Your task to perform on an android device: Open sound settings Image 0: 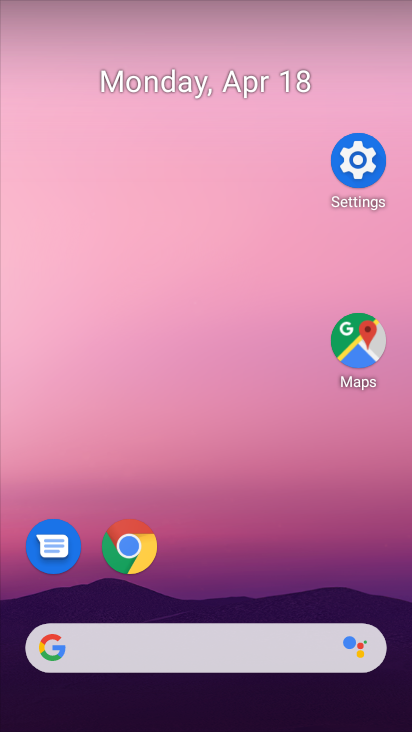
Step 0: click (162, 195)
Your task to perform on an android device: Open sound settings Image 1: 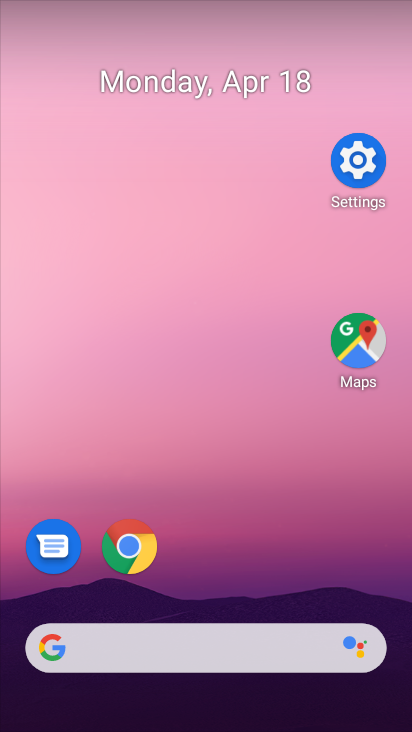
Step 1: click (198, 229)
Your task to perform on an android device: Open sound settings Image 2: 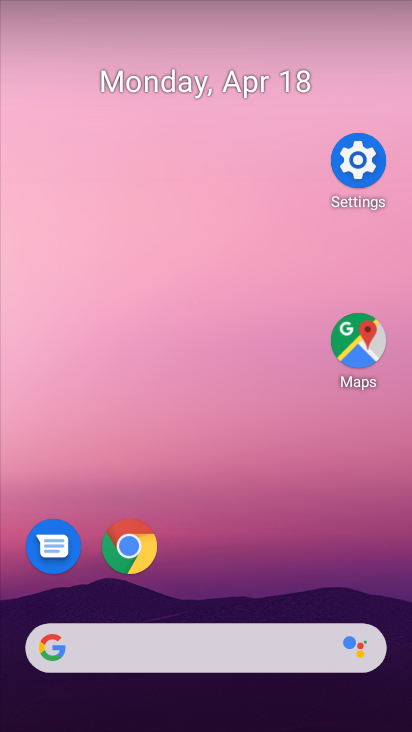
Step 2: drag from (243, 578) to (182, 158)
Your task to perform on an android device: Open sound settings Image 3: 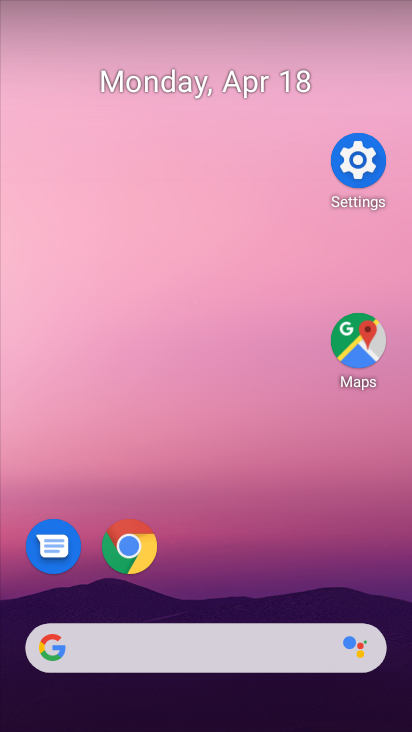
Step 3: click (131, 32)
Your task to perform on an android device: Open sound settings Image 4: 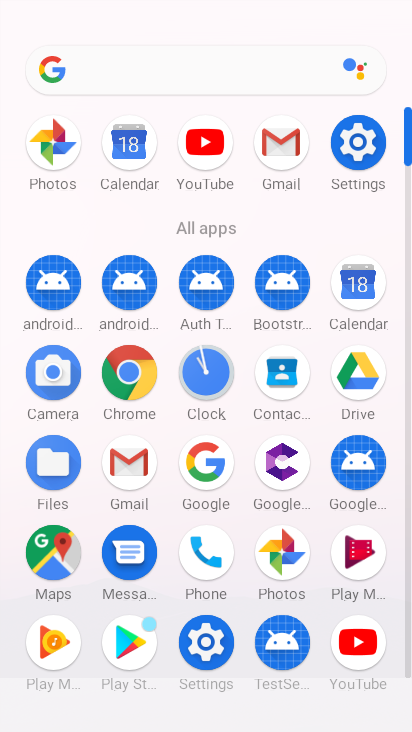
Step 4: drag from (271, 651) to (136, 174)
Your task to perform on an android device: Open sound settings Image 5: 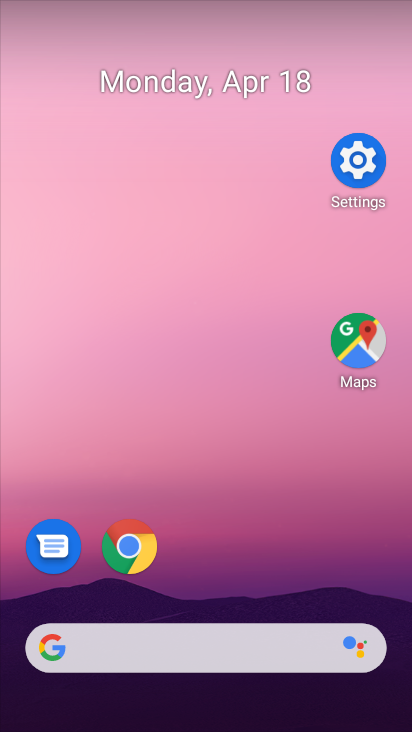
Step 5: drag from (99, 308) to (24, 52)
Your task to perform on an android device: Open sound settings Image 6: 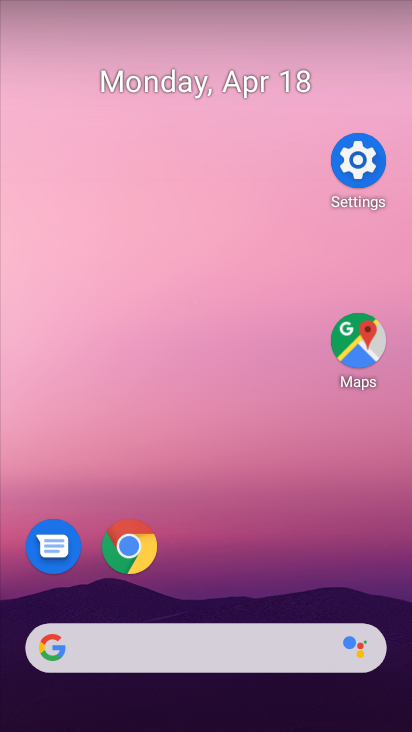
Step 6: click (132, 71)
Your task to perform on an android device: Open sound settings Image 7: 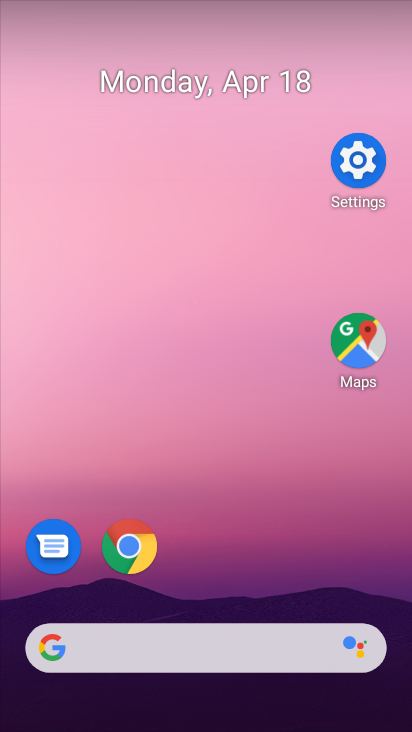
Step 7: drag from (65, 98) to (141, 186)
Your task to perform on an android device: Open sound settings Image 8: 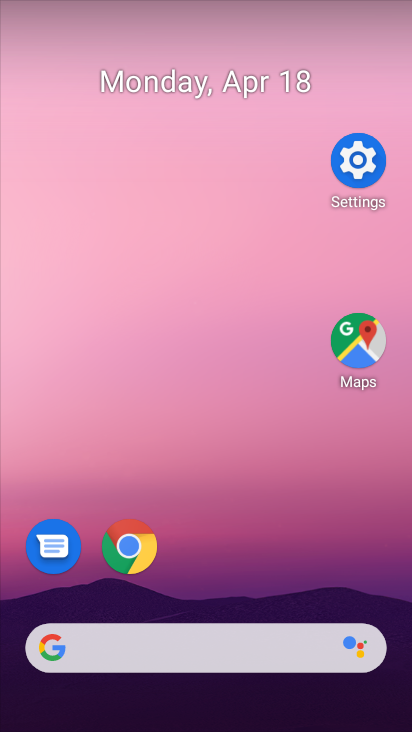
Step 8: click (148, 211)
Your task to perform on an android device: Open sound settings Image 9: 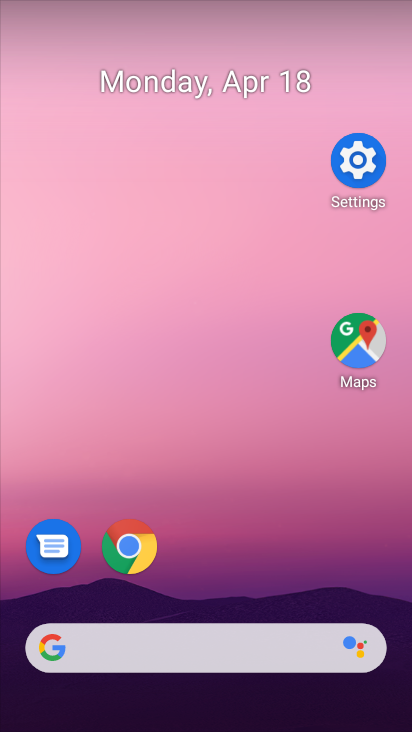
Step 9: drag from (319, 536) to (131, 74)
Your task to perform on an android device: Open sound settings Image 10: 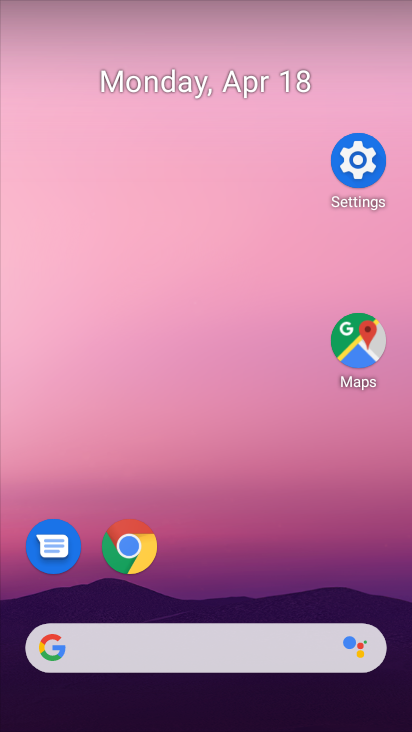
Step 10: drag from (278, 545) to (71, 127)
Your task to perform on an android device: Open sound settings Image 11: 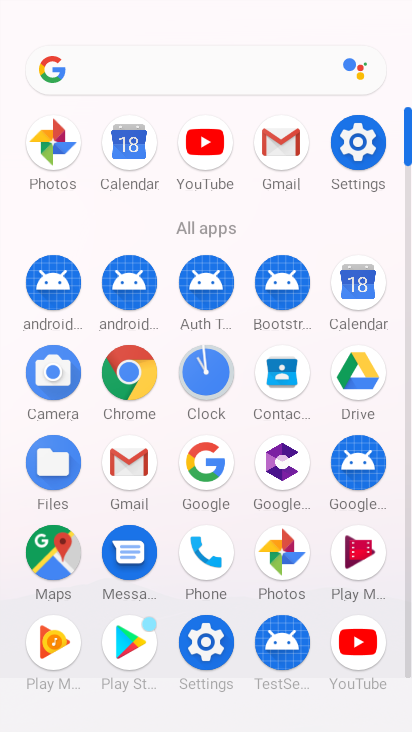
Step 11: click (347, 141)
Your task to perform on an android device: Open sound settings Image 12: 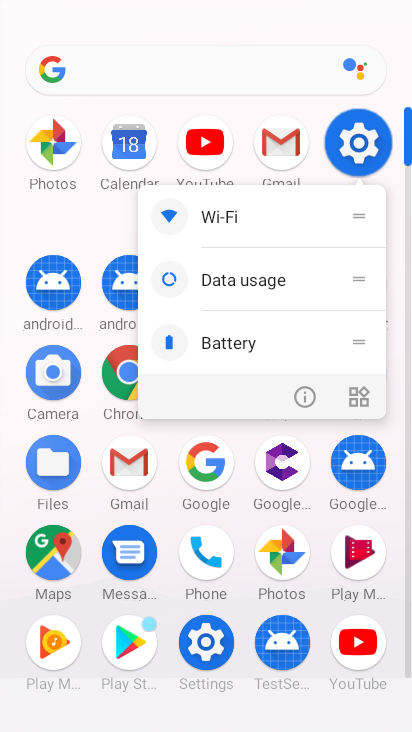
Step 12: click (348, 142)
Your task to perform on an android device: Open sound settings Image 13: 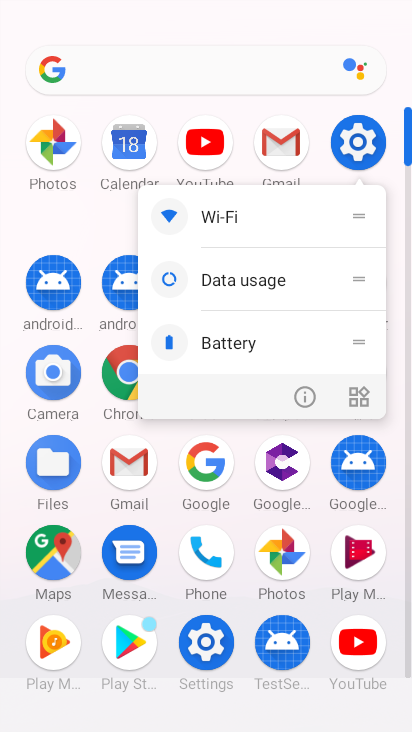
Step 13: click (363, 143)
Your task to perform on an android device: Open sound settings Image 14: 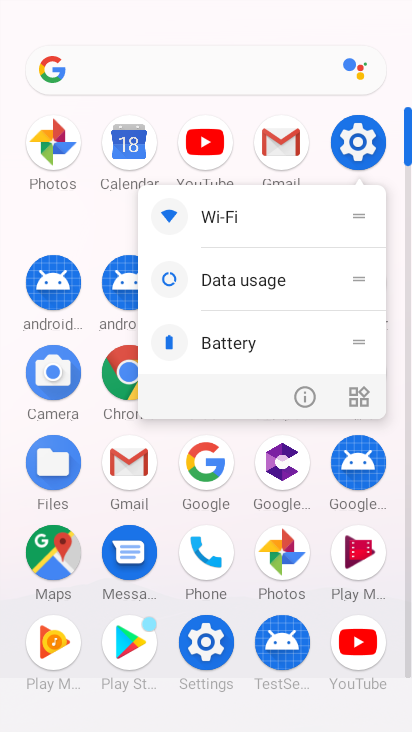
Step 14: click (360, 144)
Your task to perform on an android device: Open sound settings Image 15: 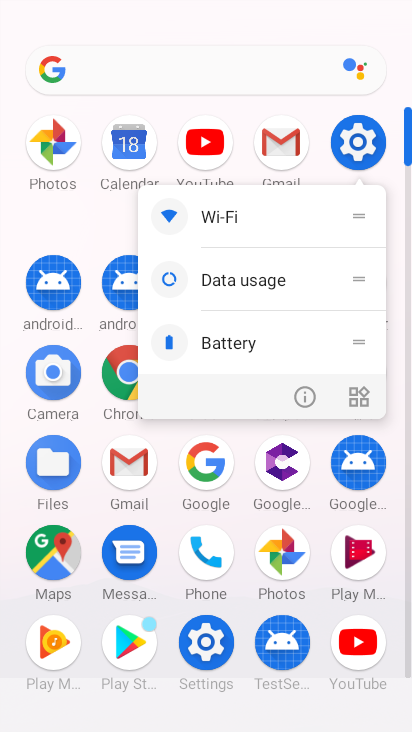
Step 15: click (365, 144)
Your task to perform on an android device: Open sound settings Image 16: 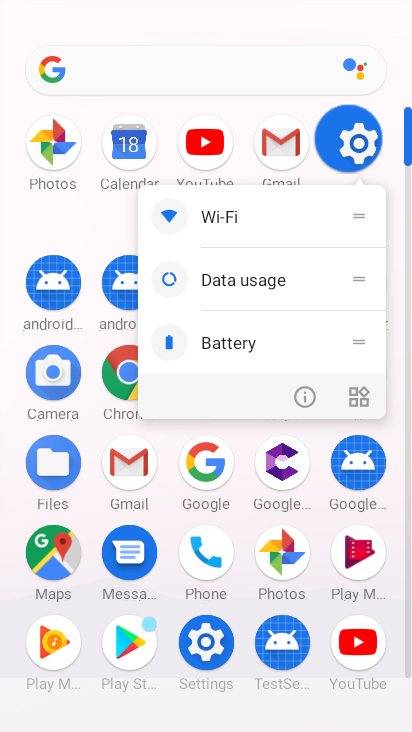
Step 16: click (351, 139)
Your task to perform on an android device: Open sound settings Image 17: 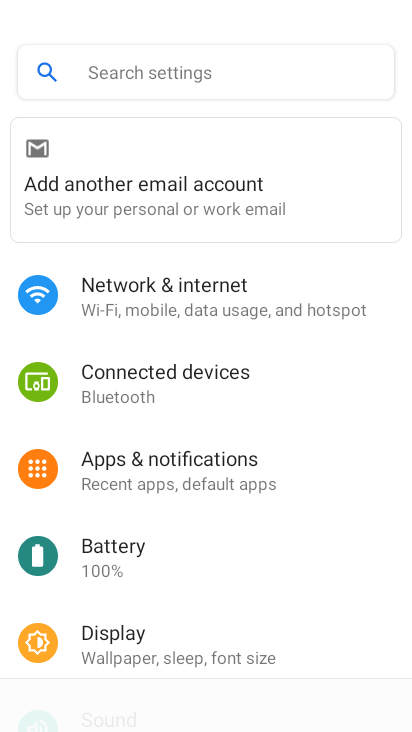
Step 17: drag from (217, 597) to (224, 279)
Your task to perform on an android device: Open sound settings Image 18: 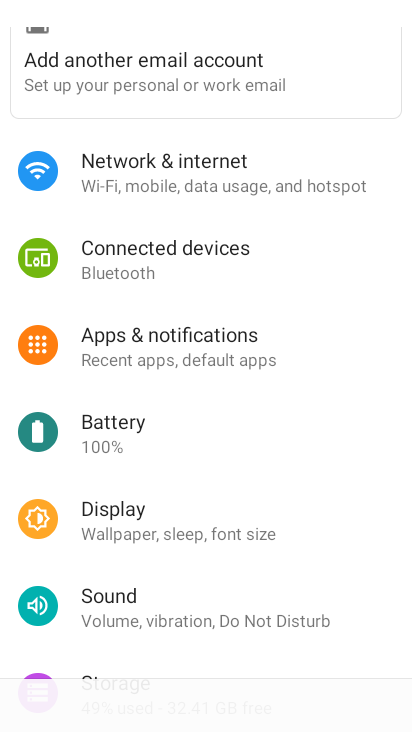
Step 18: drag from (228, 315) to (228, 276)
Your task to perform on an android device: Open sound settings Image 19: 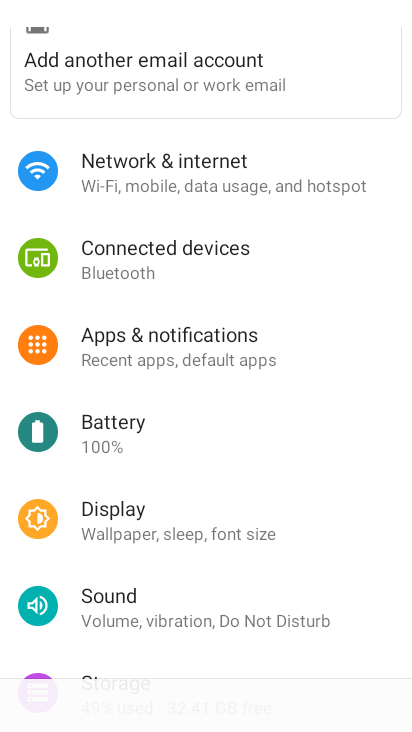
Step 19: click (113, 615)
Your task to perform on an android device: Open sound settings Image 20: 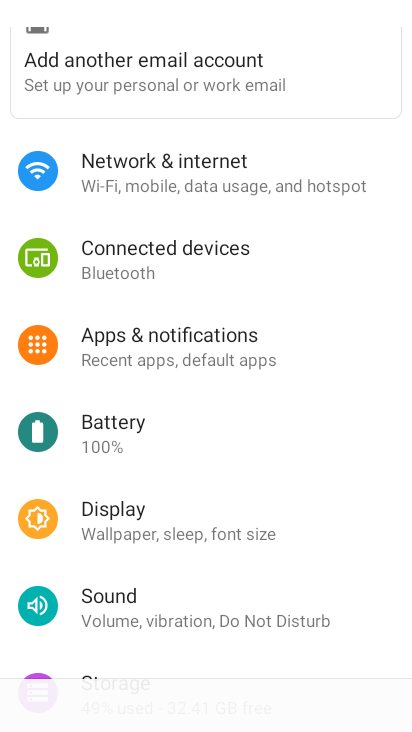
Step 20: click (113, 615)
Your task to perform on an android device: Open sound settings Image 21: 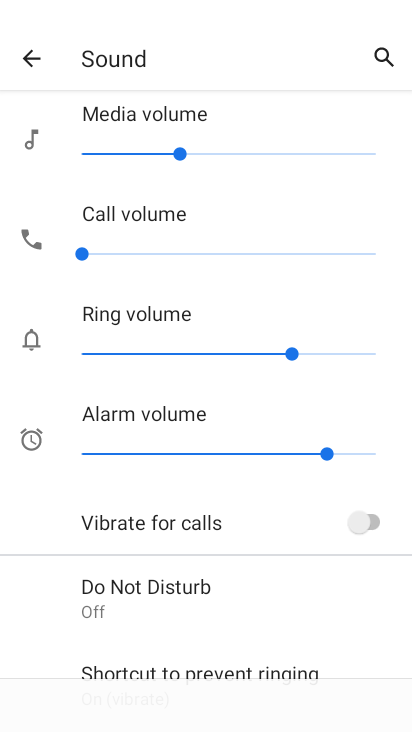
Step 21: task complete